Your task to perform on an android device: turn vacation reply on in the gmail app Image 0: 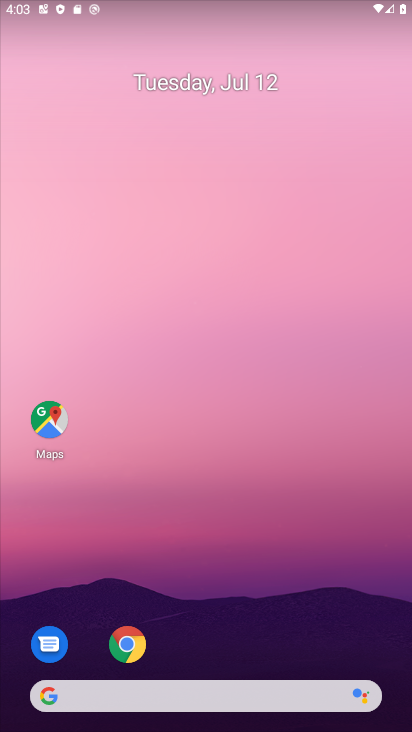
Step 0: drag from (236, 531) to (205, 398)
Your task to perform on an android device: turn vacation reply on in the gmail app Image 1: 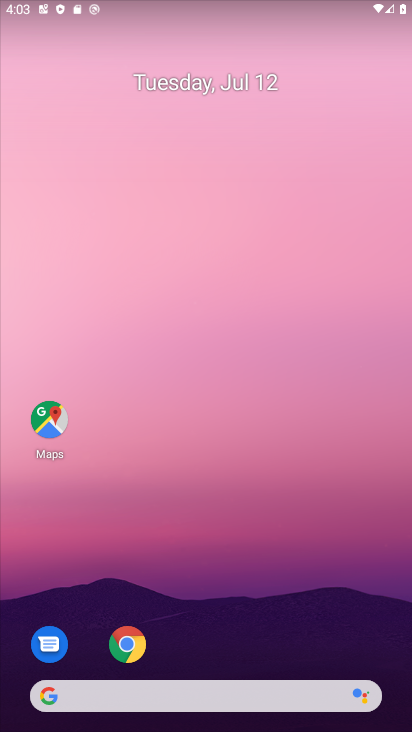
Step 1: drag from (225, 662) to (189, 296)
Your task to perform on an android device: turn vacation reply on in the gmail app Image 2: 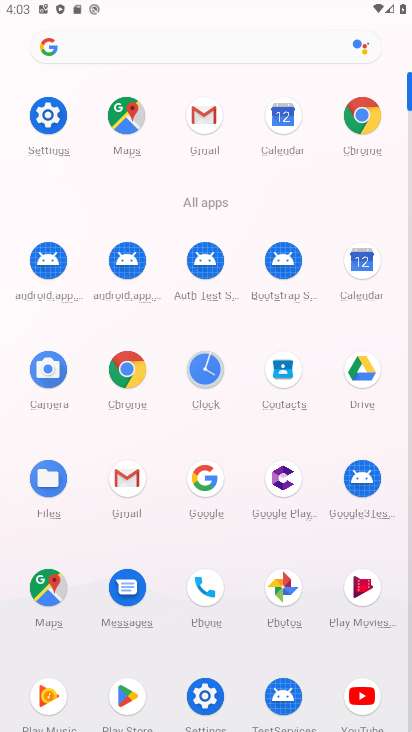
Step 2: click (125, 481)
Your task to perform on an android device: turn vacation reply on in the gmail app Image 3: 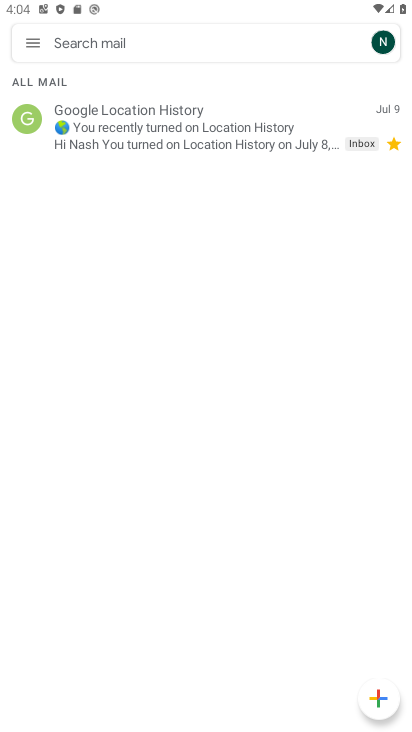
Step 3: click (35, 54)
Your task to perform on an android device: turn vacation reply on in the gmail app Image 4: 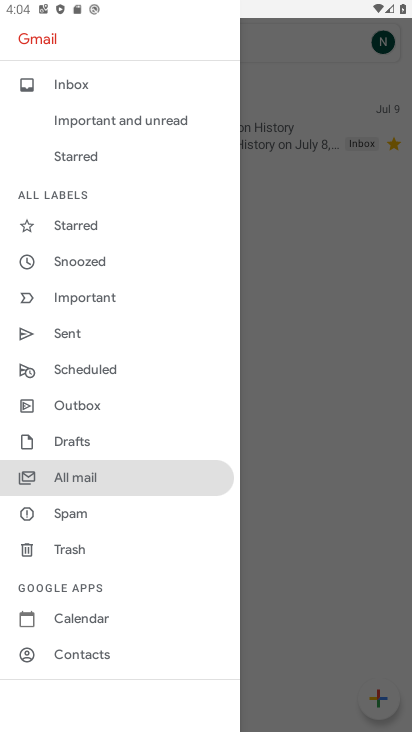
Step 4: drag from (71, 591) to (83, 354)
Your task to perform on an android device: turn vacation reply on in the gmail app Image 5: 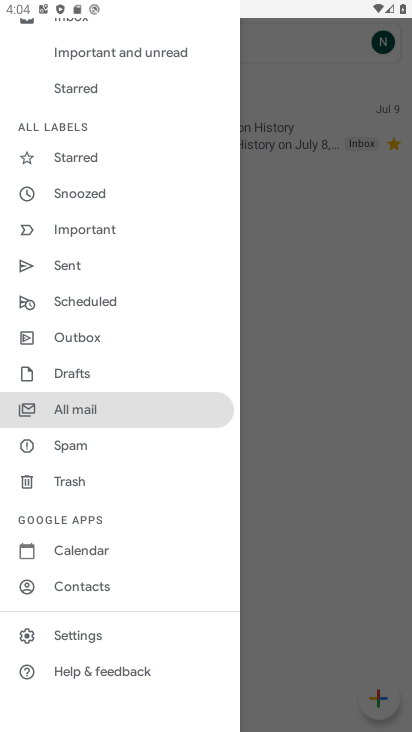
Step 5: click (75, 640)
Your task to perform on an android device: turn vacation reply on in the gmail app Image 6: 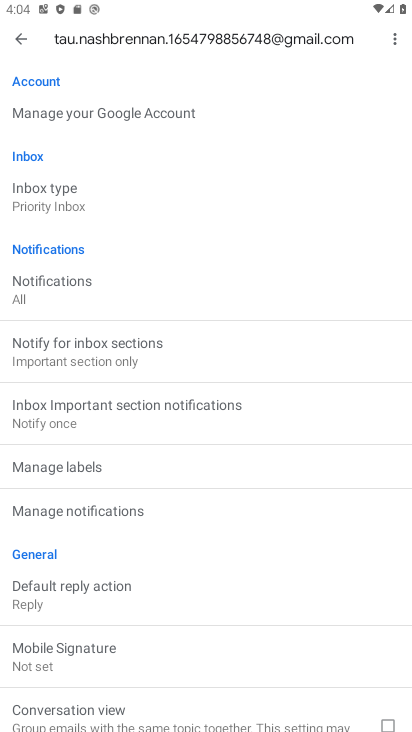
Step 6: drag from (131, 579) to (126, 306)
Your task to perform on an android device: turn vacation reply on in the gmail app Image 7: 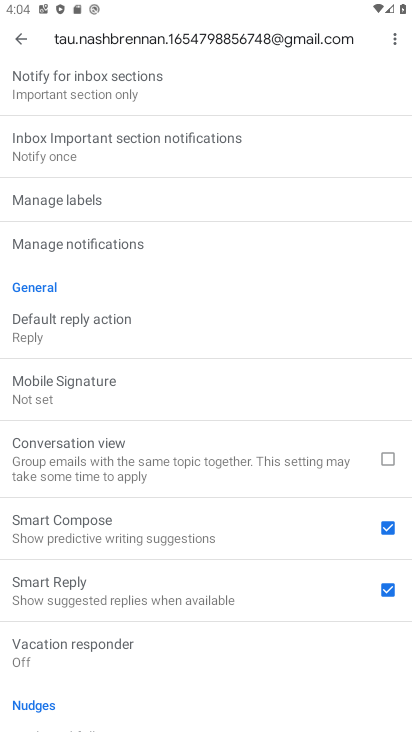
Step 7: click (87, 653)
Your task to perform on an android device: turn vacation reply on in the gmail app Image 8: 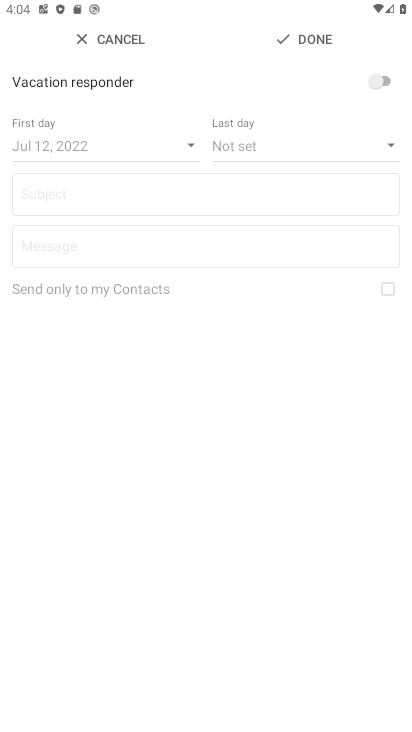
Step 8: click (381, 83)
Your task to perform on an android device: turn vacation reply on in the gmail app Image 9: 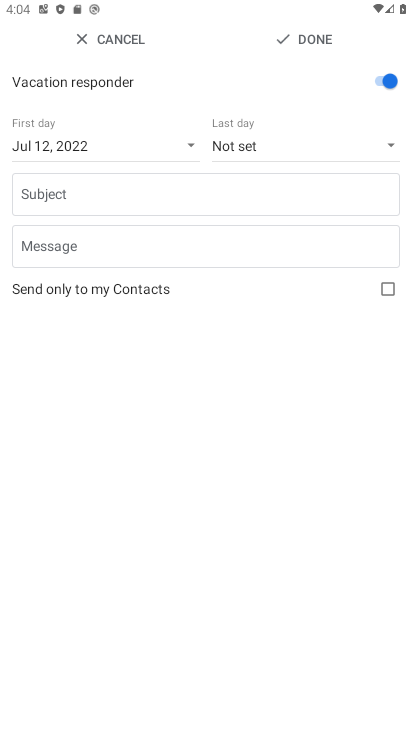
Step 9: task complete